Your task to perform on an android device: turn on priority inbox in the gmail app Image 0: 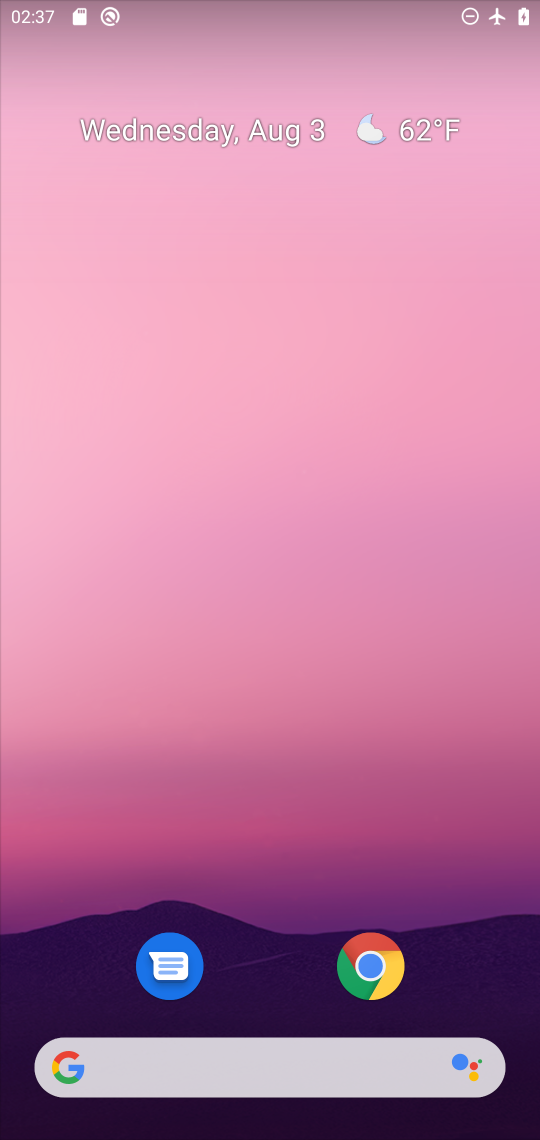
Step 0: drag from (269, 998) to (281, 250)
Your task to perform on an android device: turn on priority inbox in the gmail app Image 1: 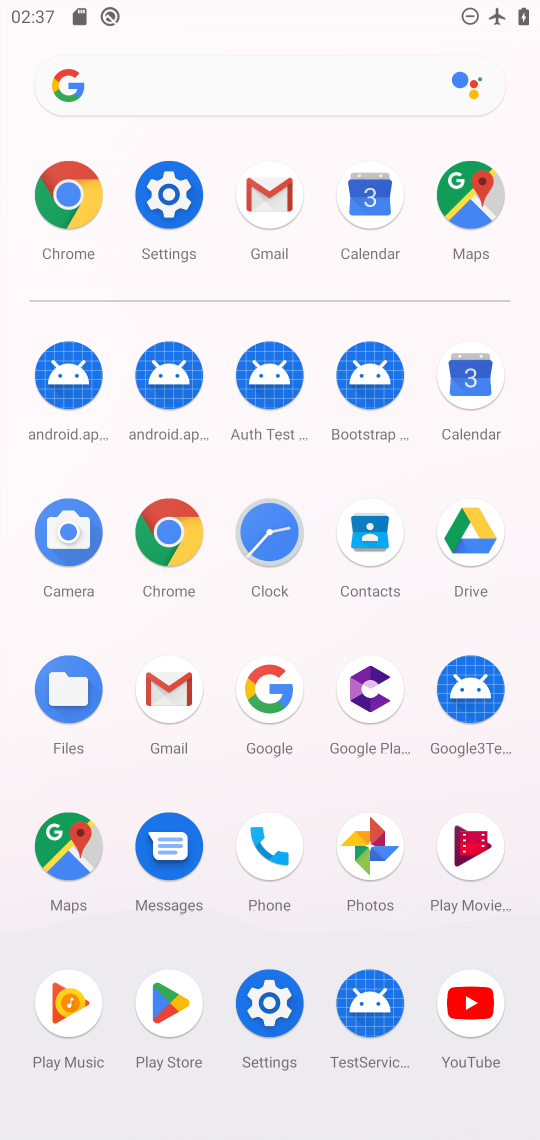
Step 1: click (242, 188)
Your task to perform on an android device: turn on priority inbox in the gmail app Image 2: 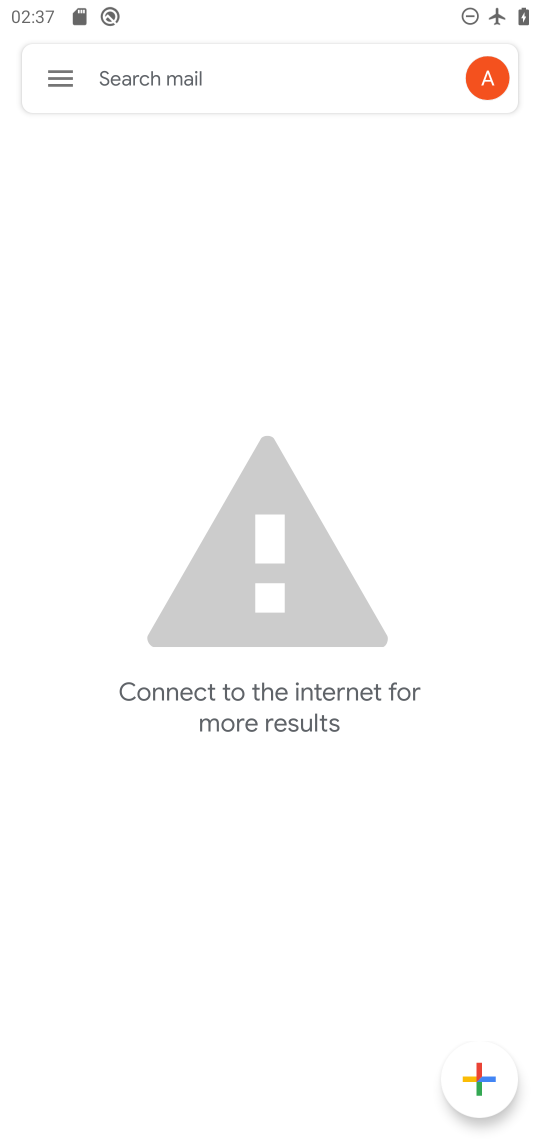
Step 2: click (50, 82)
Your task to perform on an android device: turn on priority inbox in the gmail app Image 3: 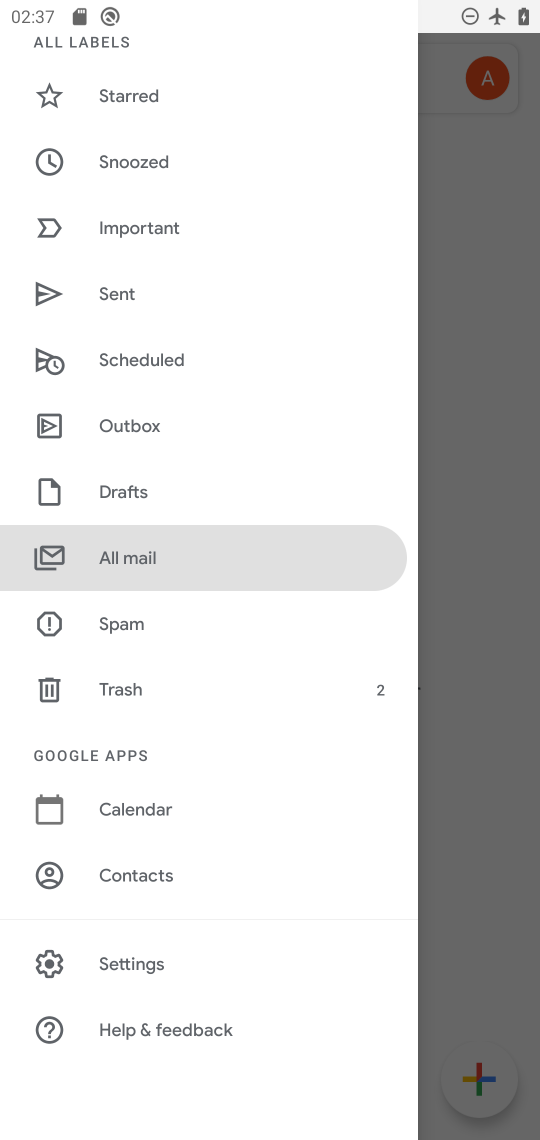
Step 3: click (112, 971)
Your task to perform on an android device: turn on priority inbox in the gmail app Image 4: 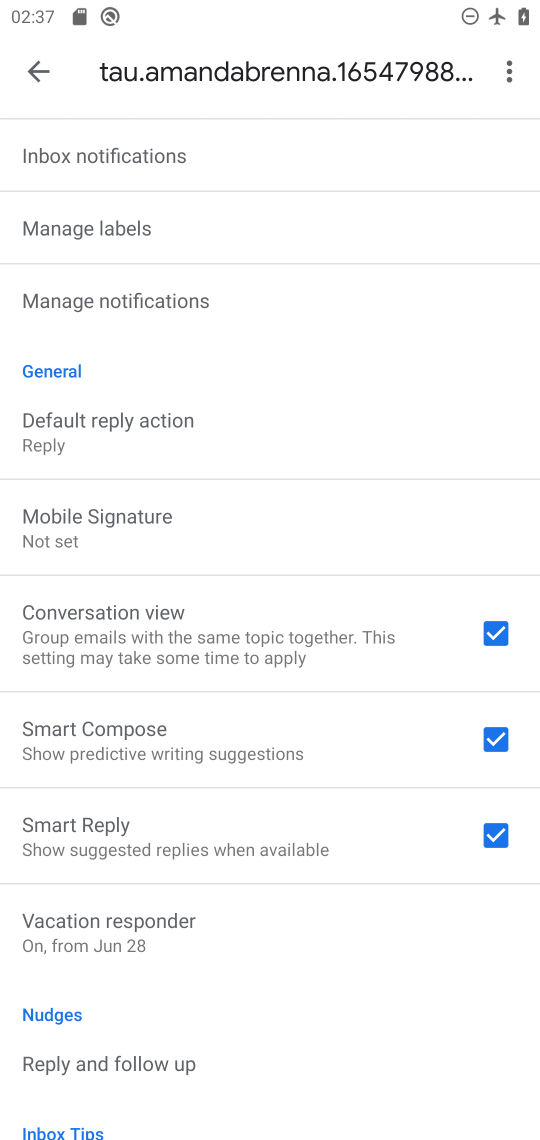
Step 4: drag from (187, 317) to (197, 642)
Your task to perform on an android device: turn on priority inbox in the gmail app Image 5: 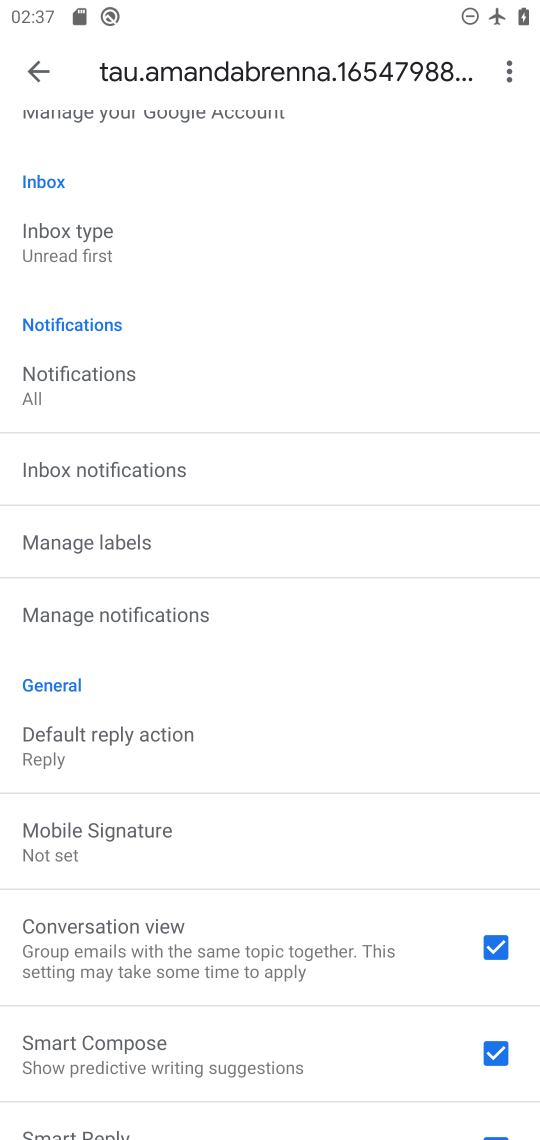
Step 5: click (145, 255)
Your task to perform on an android device: turn on priority inbox in the gmail app Image 6: 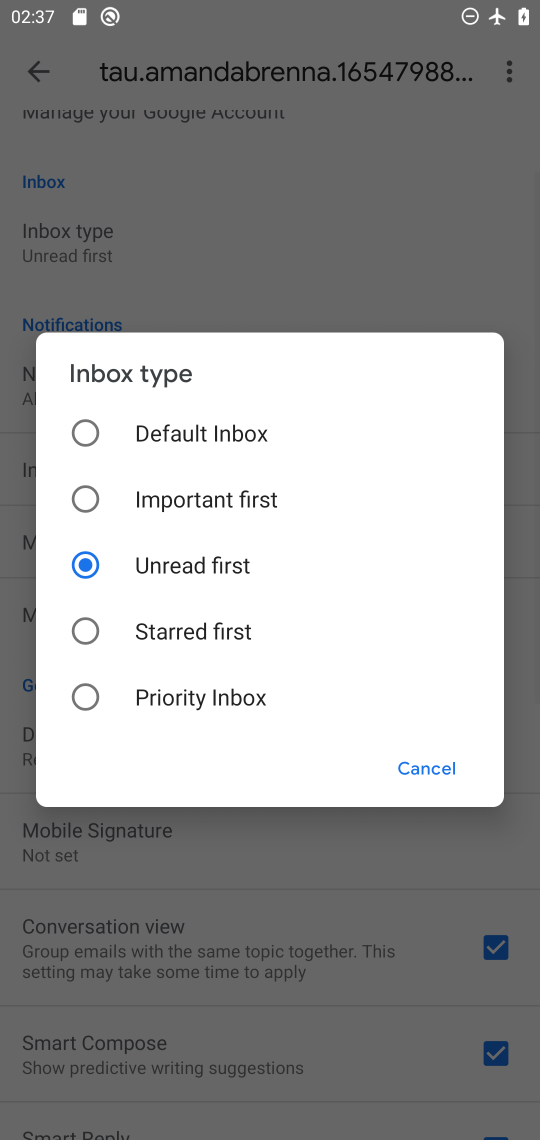
Step 6: click (149, 687)
Your task to perform on an android device: turn on priority inbox in the gmail app Image 7: 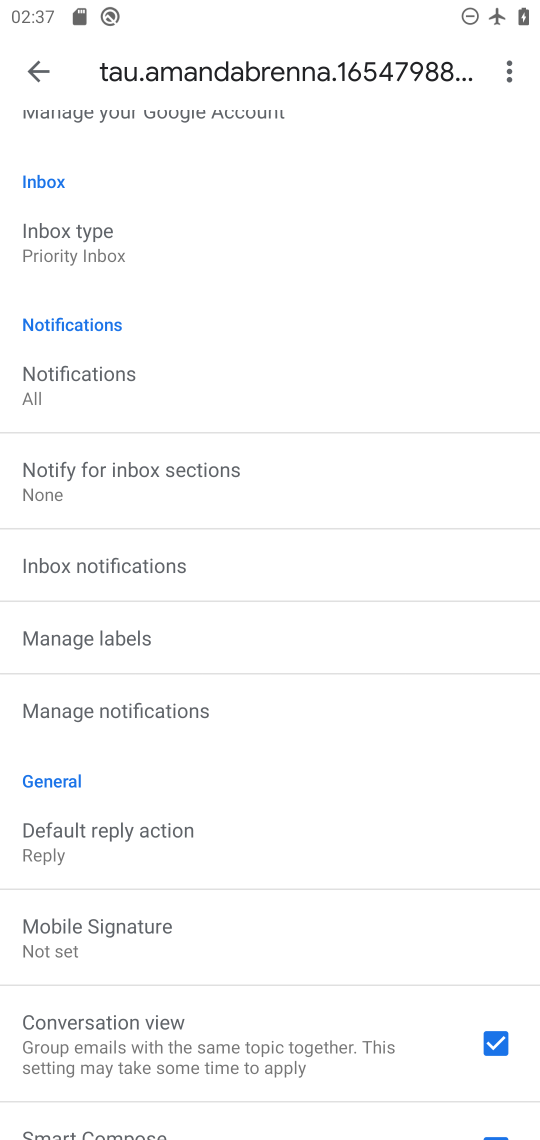
Step 7: task complete